Your task to perform on an android device: Show me recent news Image 0: 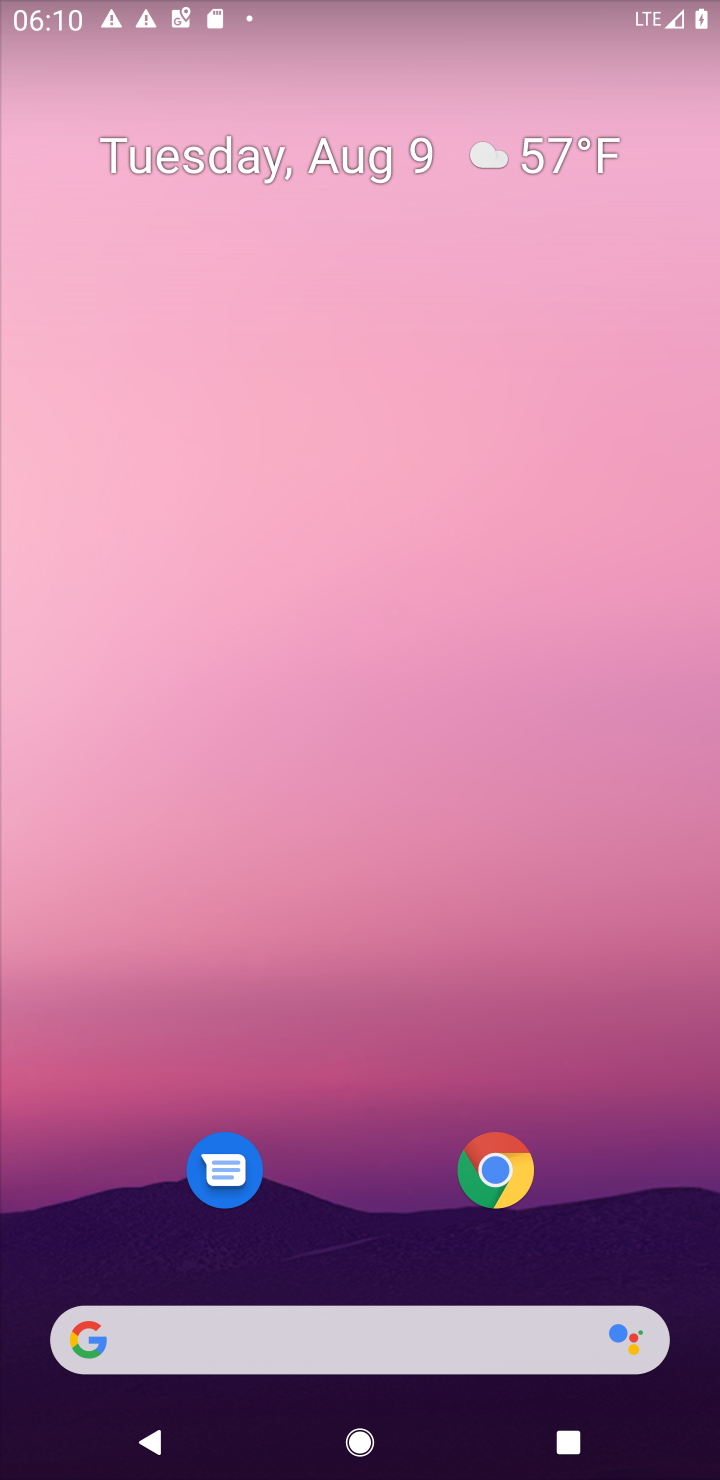
Step 0: press home button
Your task to perform on an android device: Show me recent news Image 1: 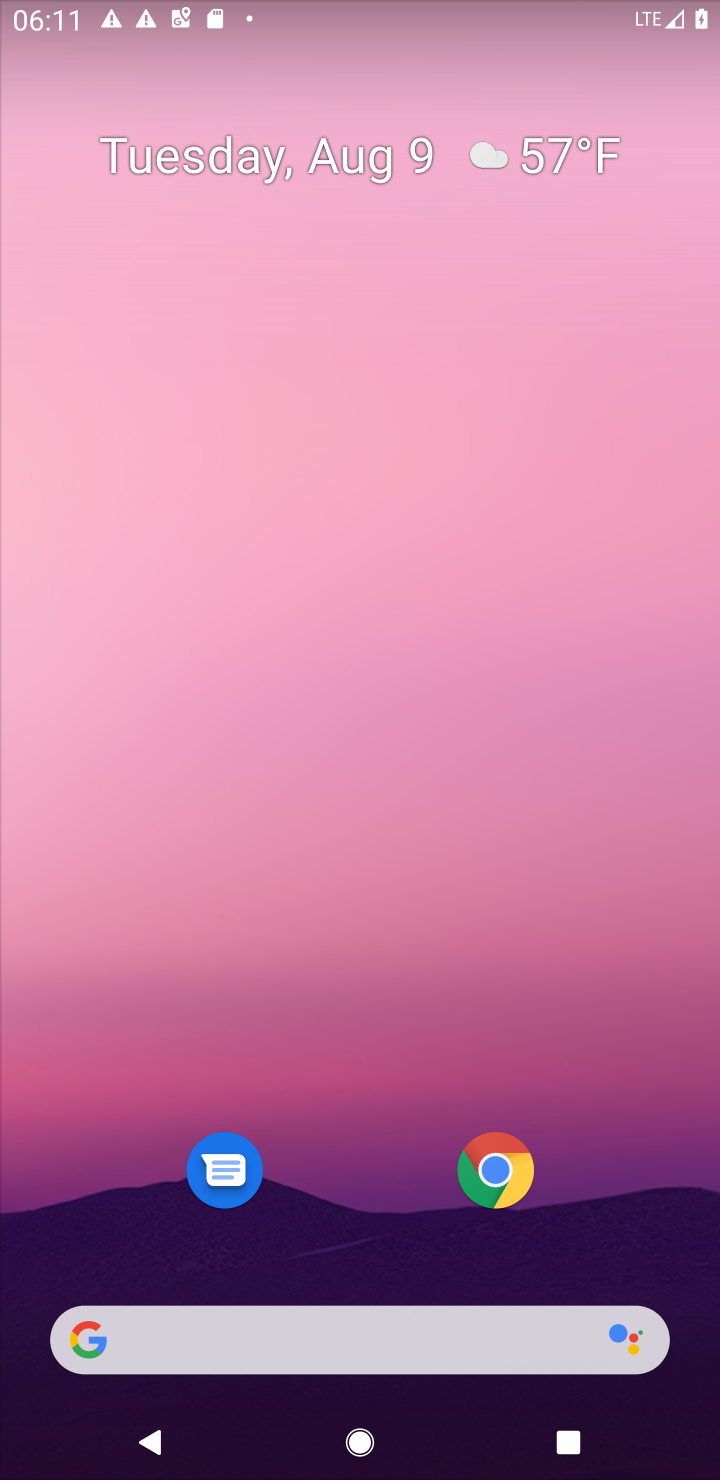
Step 1: click (83, 1340)
Your task to perform on an android device: Show me recent news Image 2: 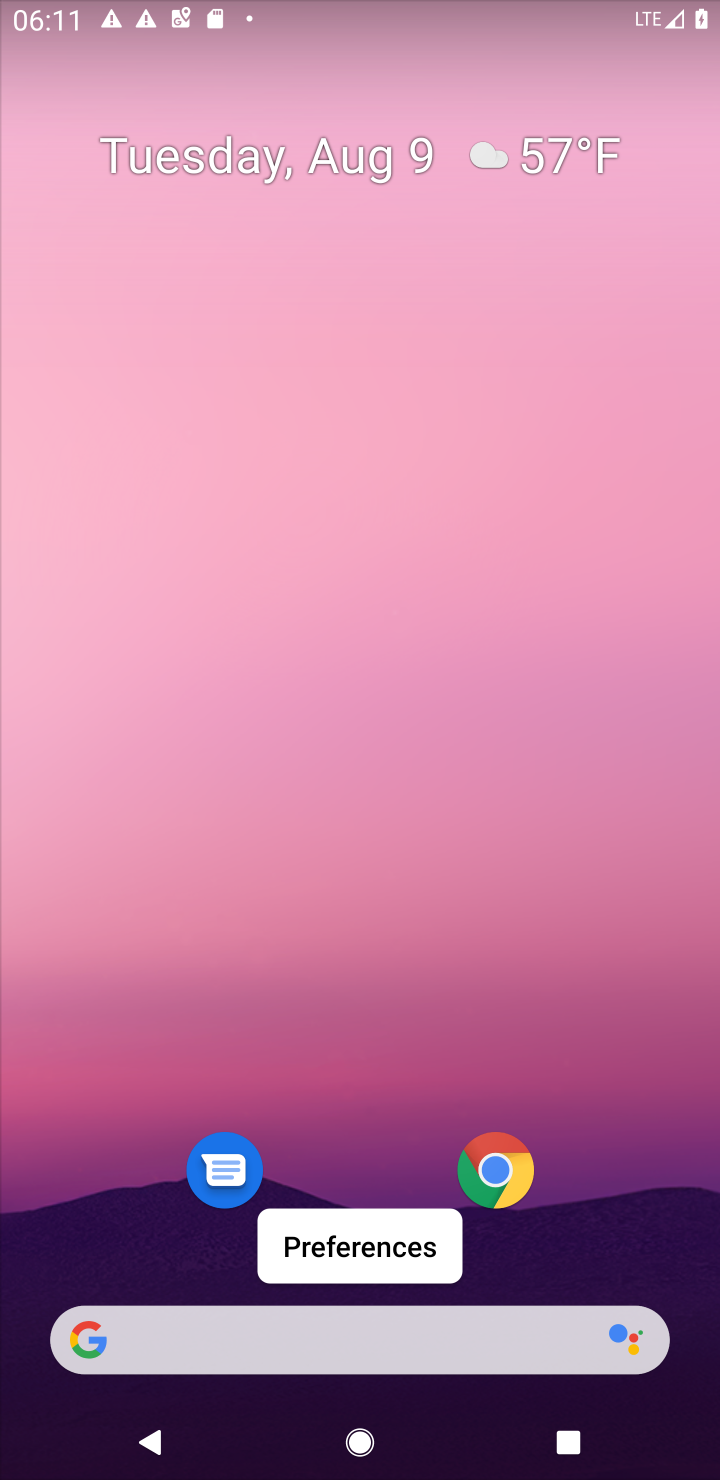
Step 2: click (83, 1340)
Your task to perform on an android device: Show me recent news Image 3: 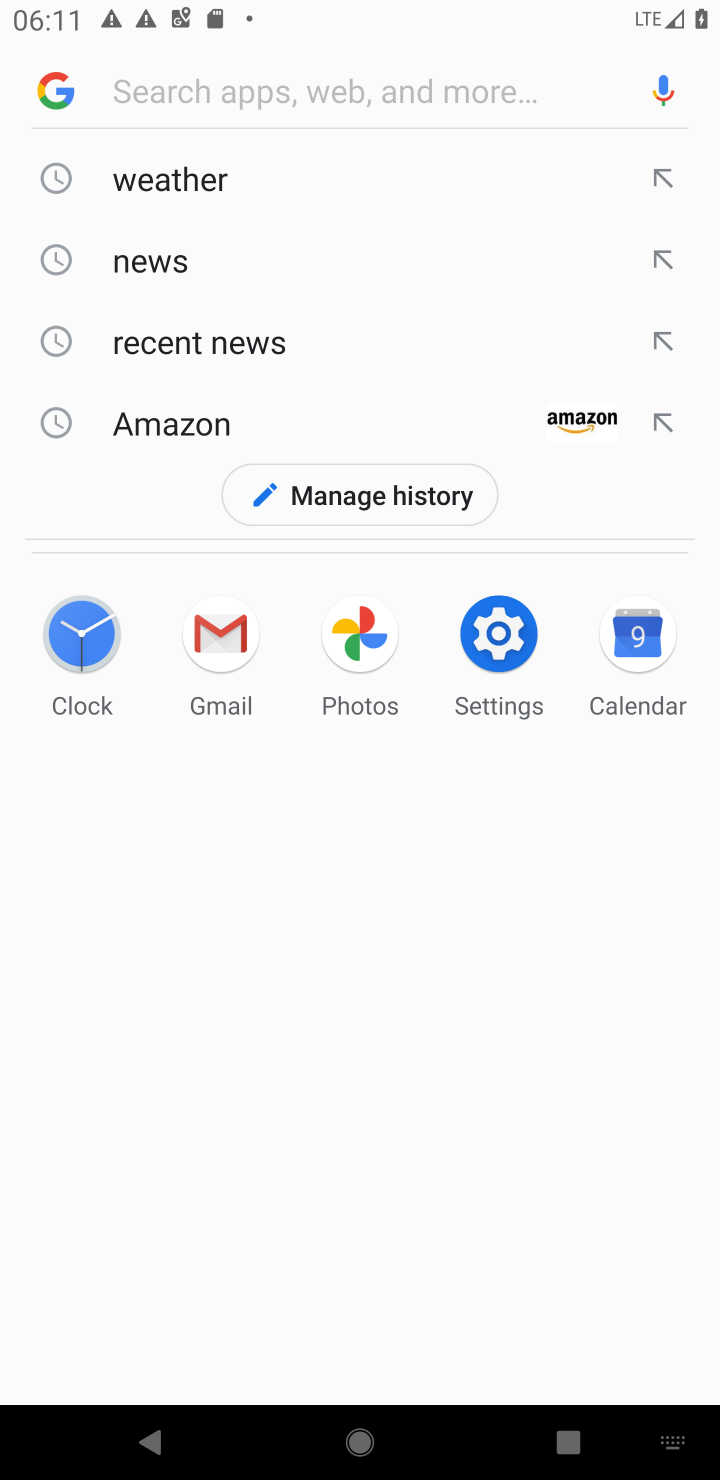
Step 3: press enter
Your task to perform on an android device: Show me recent news Image 4: 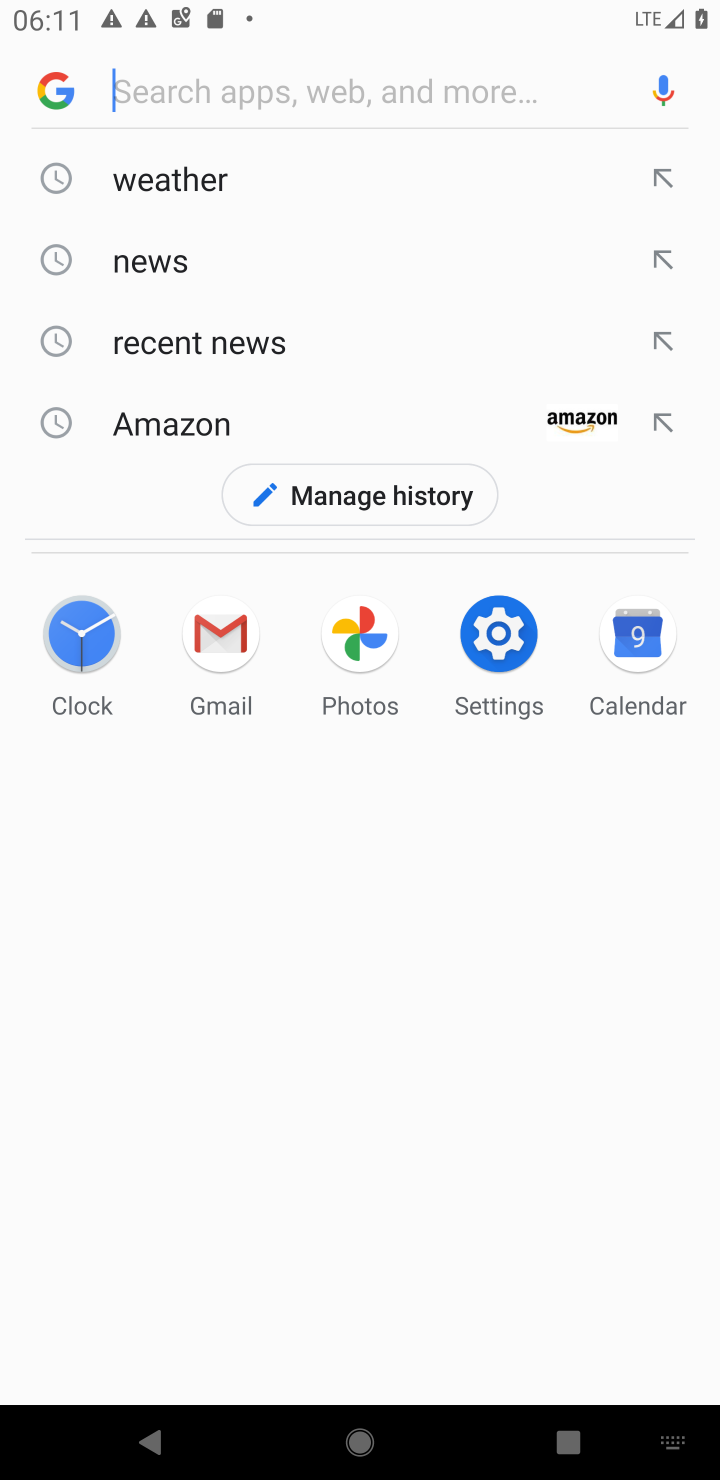
Step 4: type "recent news"
Your task to perform on an android device: Show me recent news Image 5: 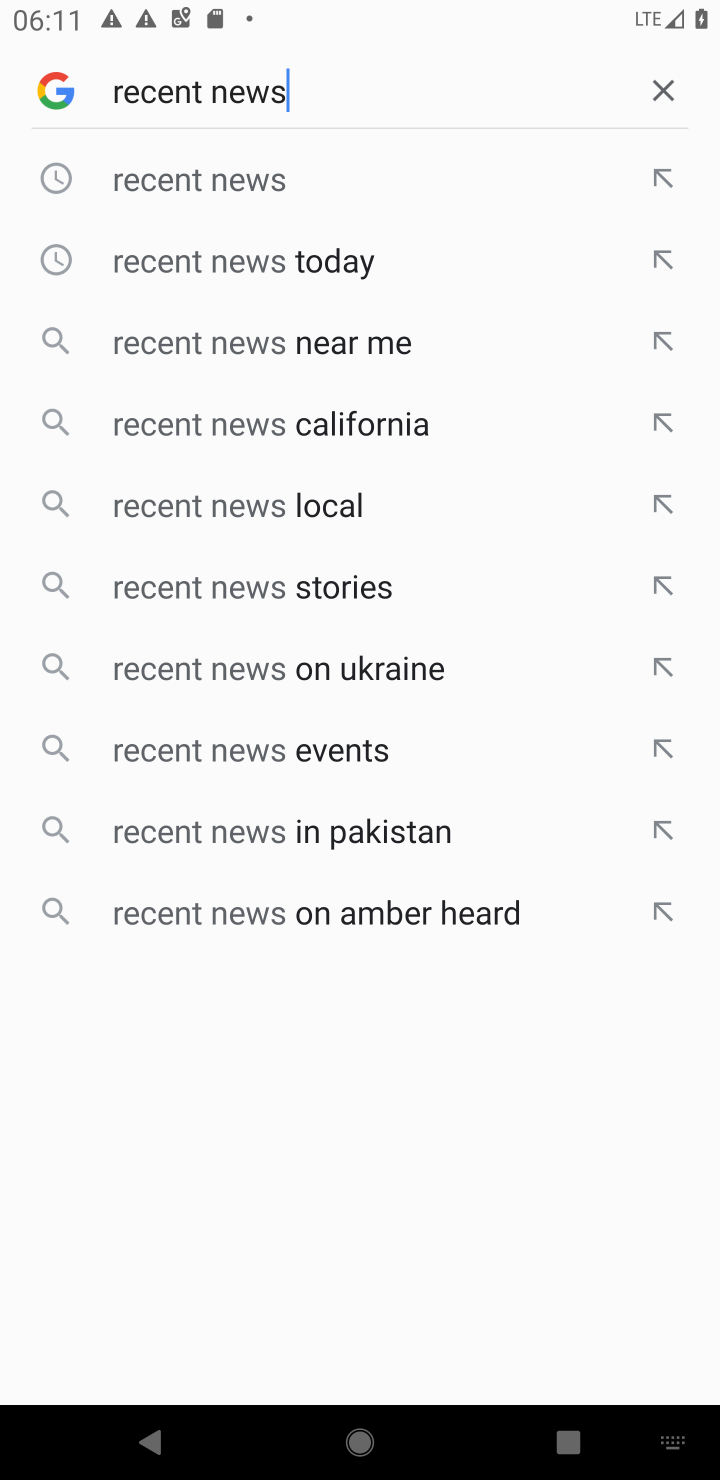
Step 5: press enter
Your task to perform on an android device: Show me recent news Image 6: 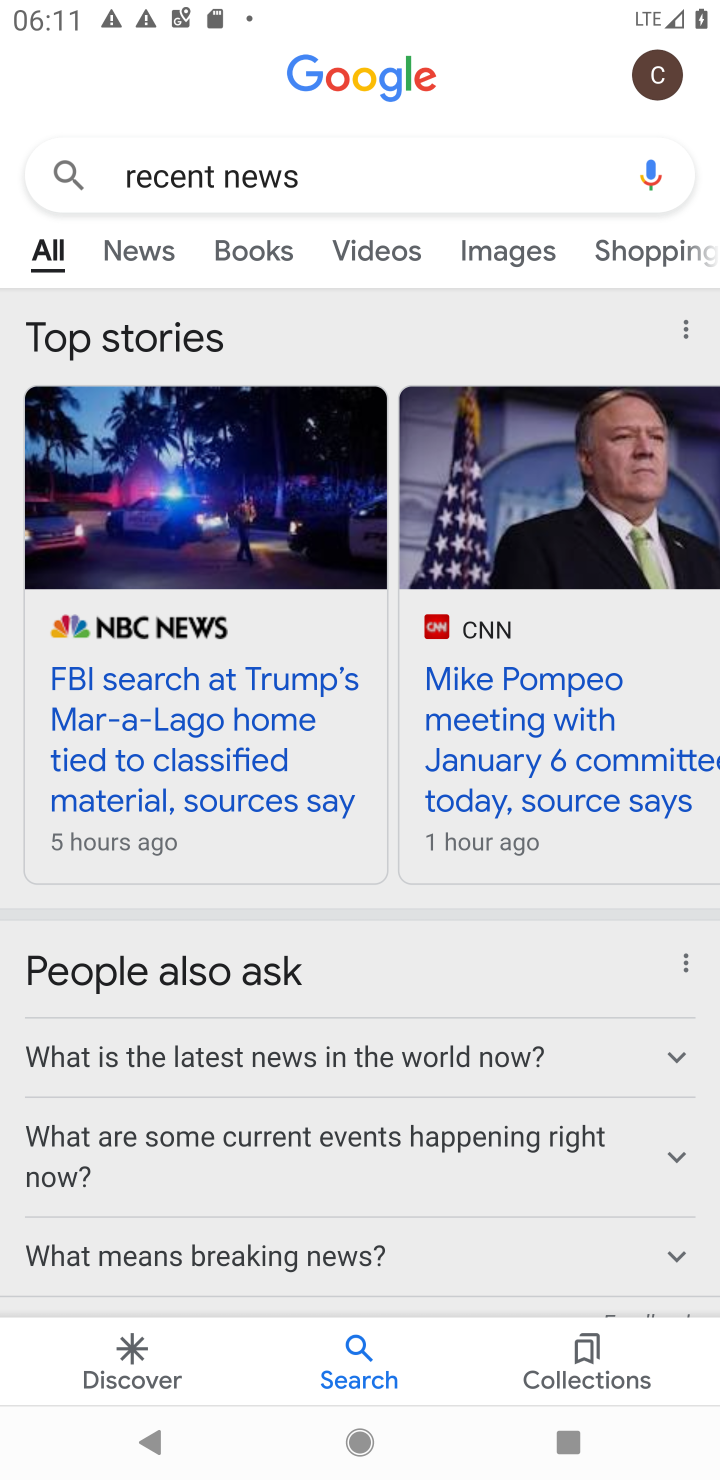
Step 6: task complete